Your task to perform on an android device: Go to Yahoo.com Image 0: 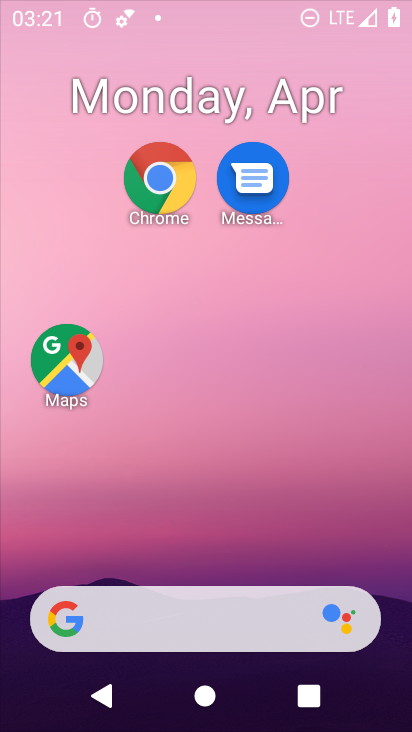
Step 0: drag from (220, 545) to (267, 88)
Your task to perform on an android device: Go to Yahoo.com Image 1: 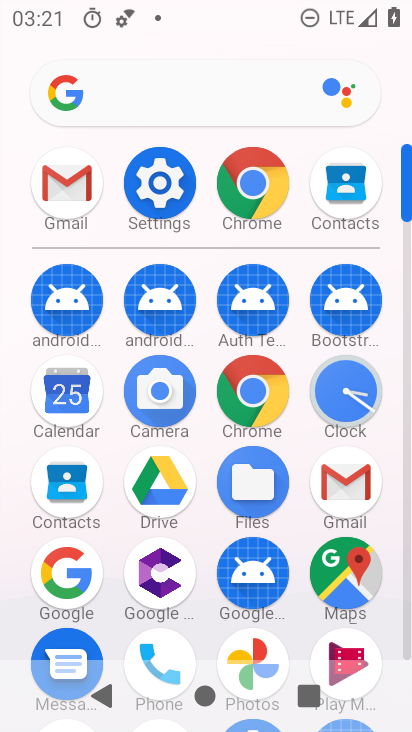
Step 1: click (347, 502)
Your task to perform on an android device: Go to Yahoo.com Image 2: 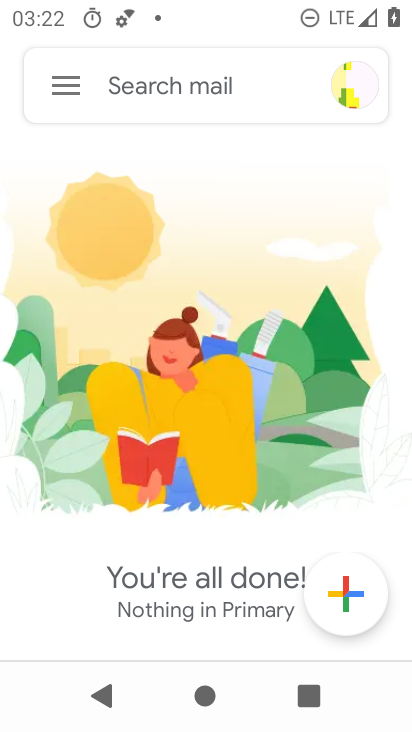
Step 2: press home button
Your task to perform on an android device: Go to Yahoo.com Image 3: 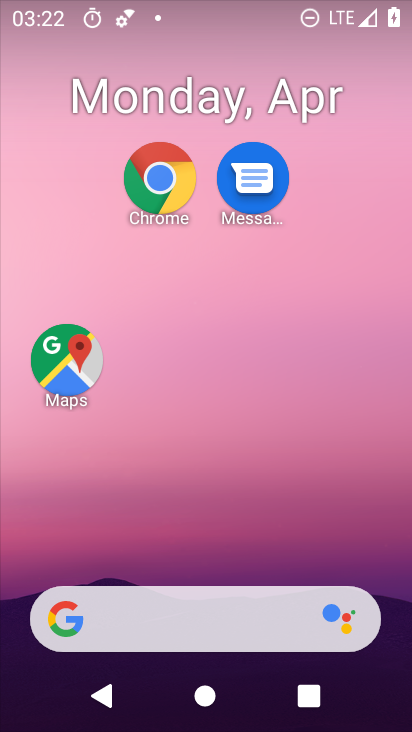
Step 3: drag from (192, 597) to (195, 0)
Your task to perform on an android device: Go to Yahoo.com Image 4: 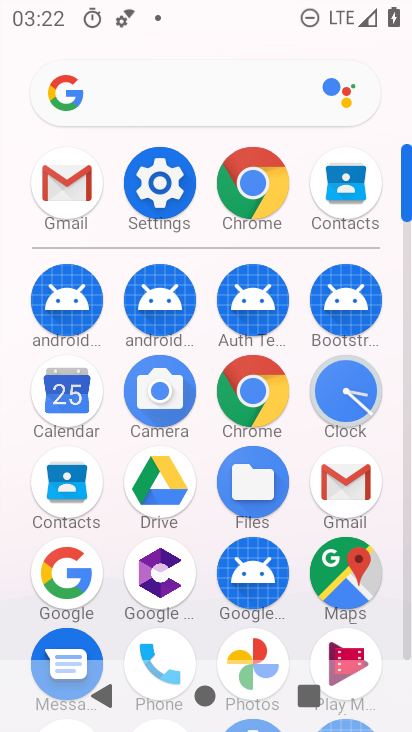
Step 4: click (248, 406)
Your task to perform on an android device: Go to Yahoo.com Image 5: 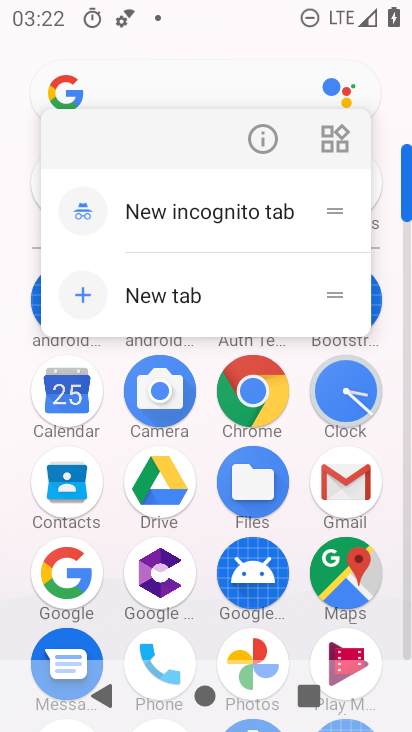
Step 5: click (256, 385)
Your task to perform on an android device: Go to Yahoo.com Image 6: 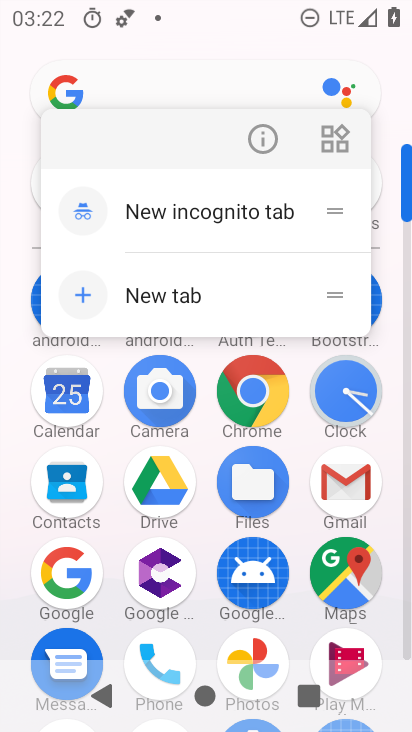
Step 6: click (256, 385)
Your task to perform on an android device: Go to Yahoo.com Image 7: 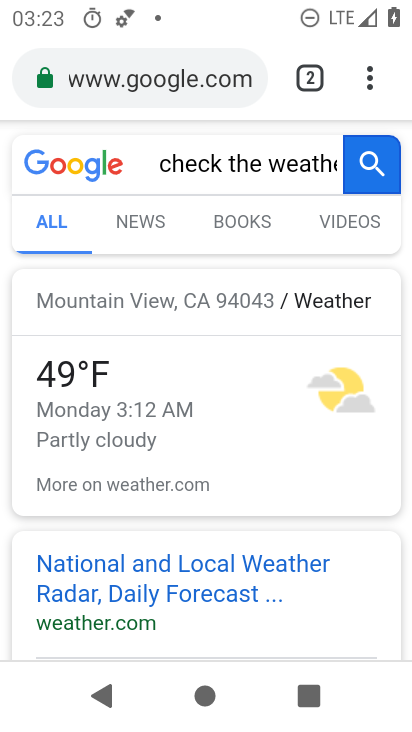
Step 7: drag from (365, 76) to (166, 258)
Your task to perform on an android device: Go to Yahoo.com Image 8: 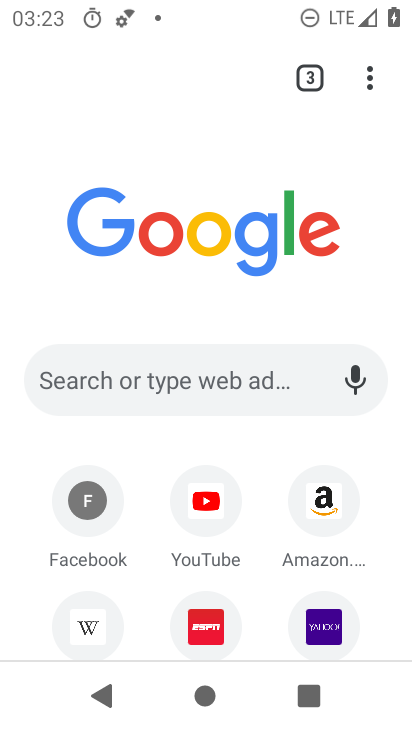
Step 8: drag from (19, 615) to (61, 256)
Your task to perform on an android device: Go to Yahoo.com Image 9: 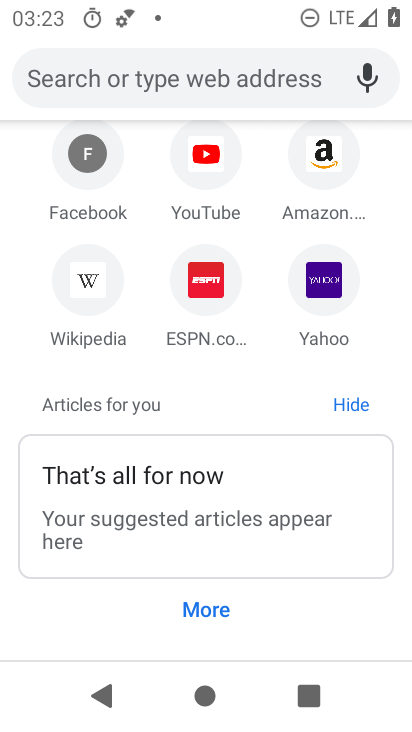
Step 9: click (319, 277)
Your task to perform on an android device: Go to Yahoo.com Image 10: 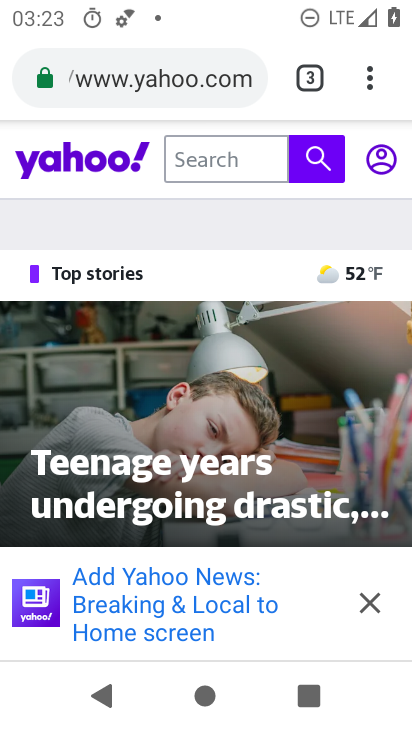
Step 10: task complete